Your task to perform on an android device: open chrome and create a bookmark for the current page Image 0: 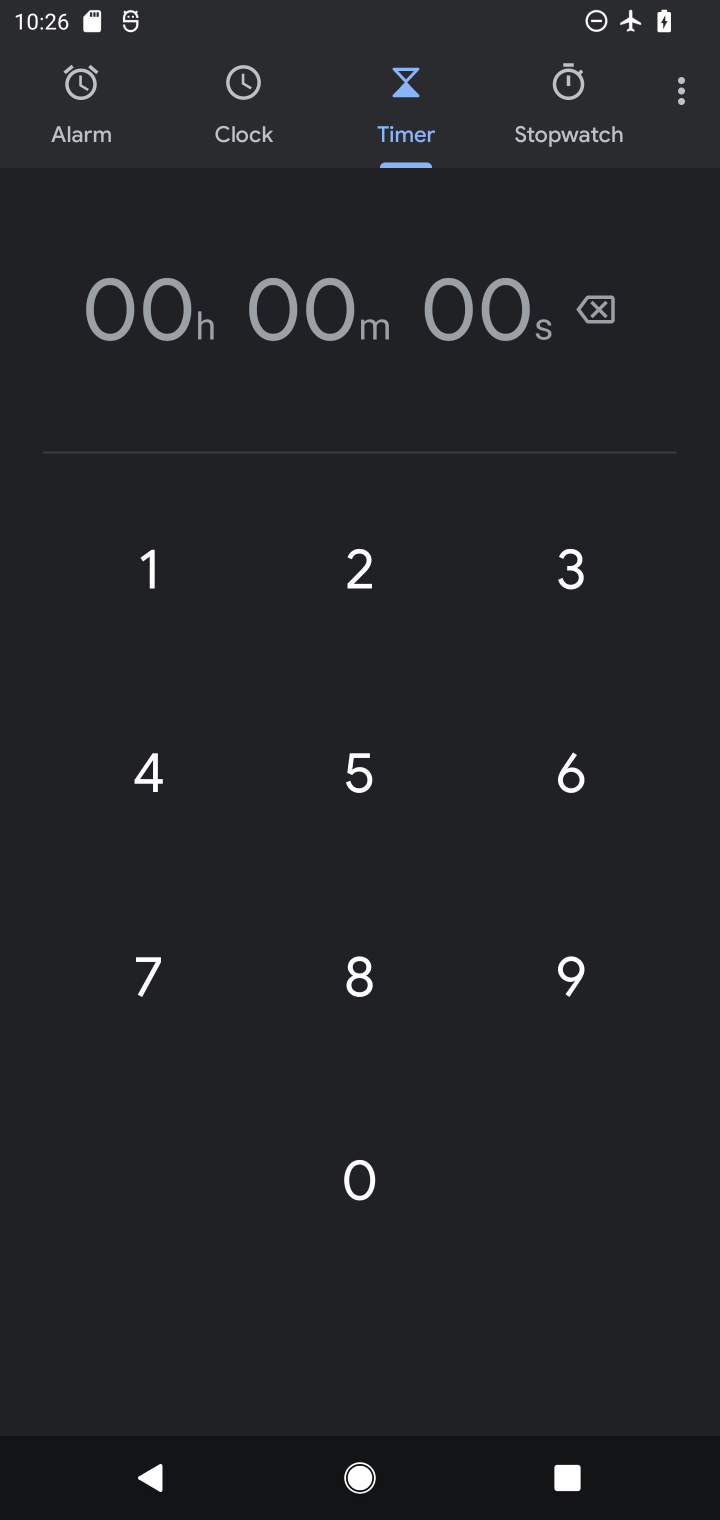
Step 0: press home button
Your task to perform on an android device: open chrome and create a bookmark for the current page Image 1: 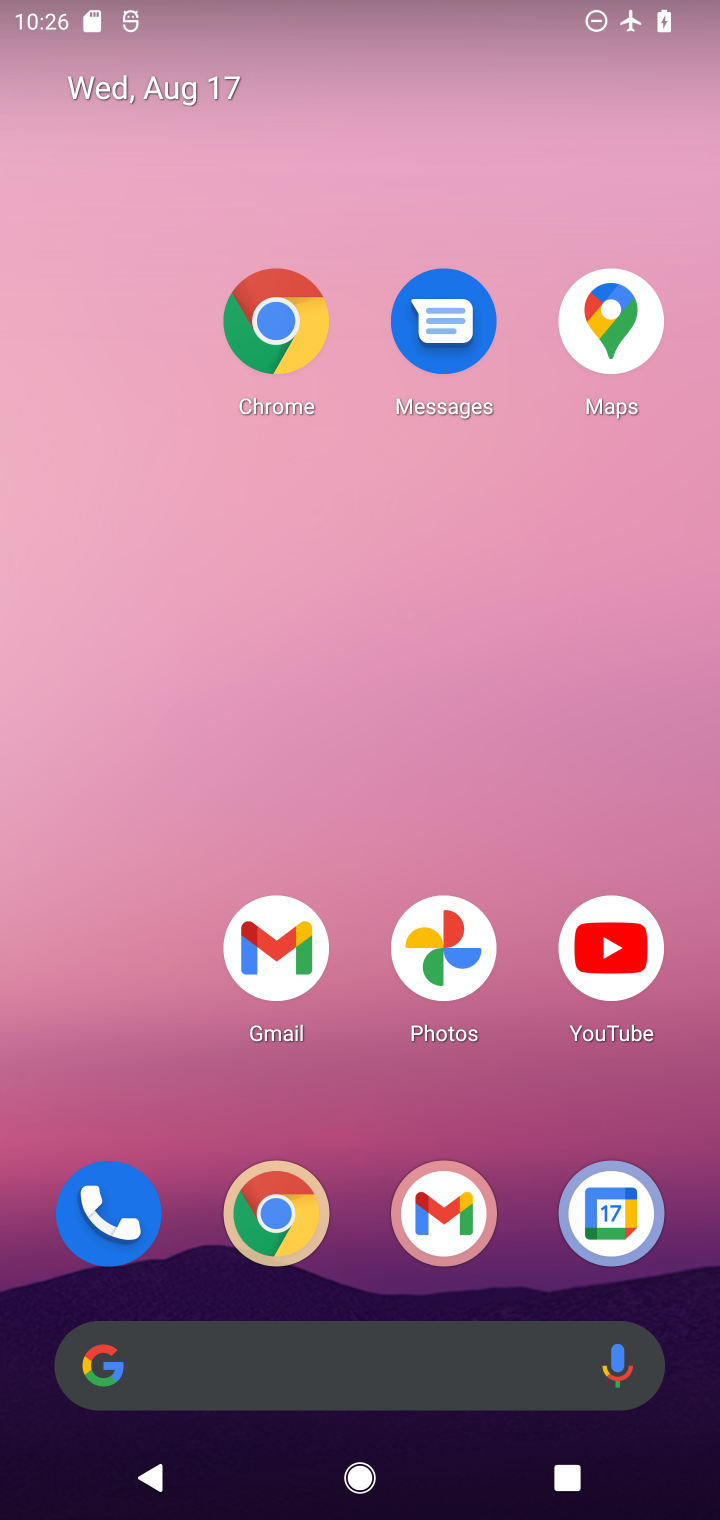
Step 1: click (301, 1213)
Your task to perform on an android device: open chrome and create a bookmark for the current page Image 2: 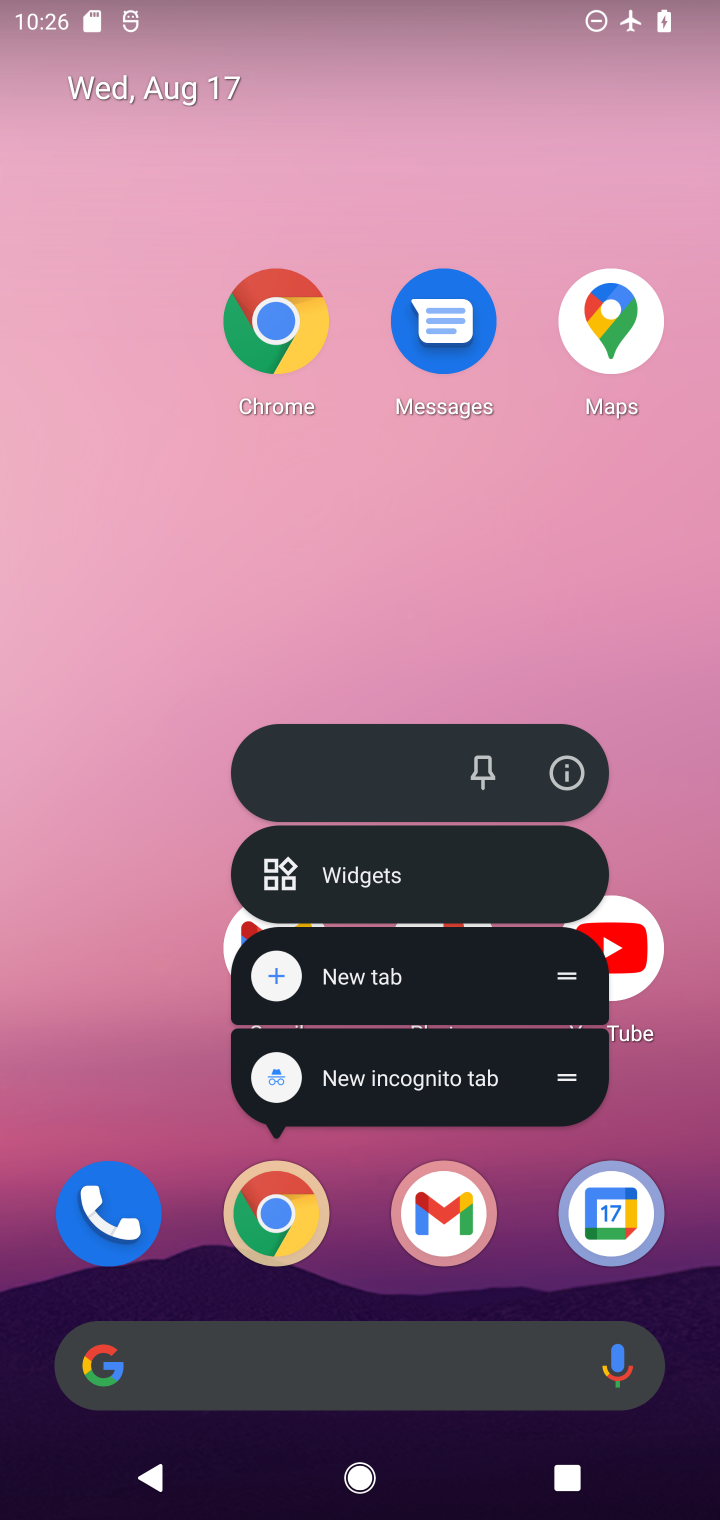
Step 2: click (301, 1213)
Your task to perform on an android device: open chrome and create a bookmark for the current page Image 3: 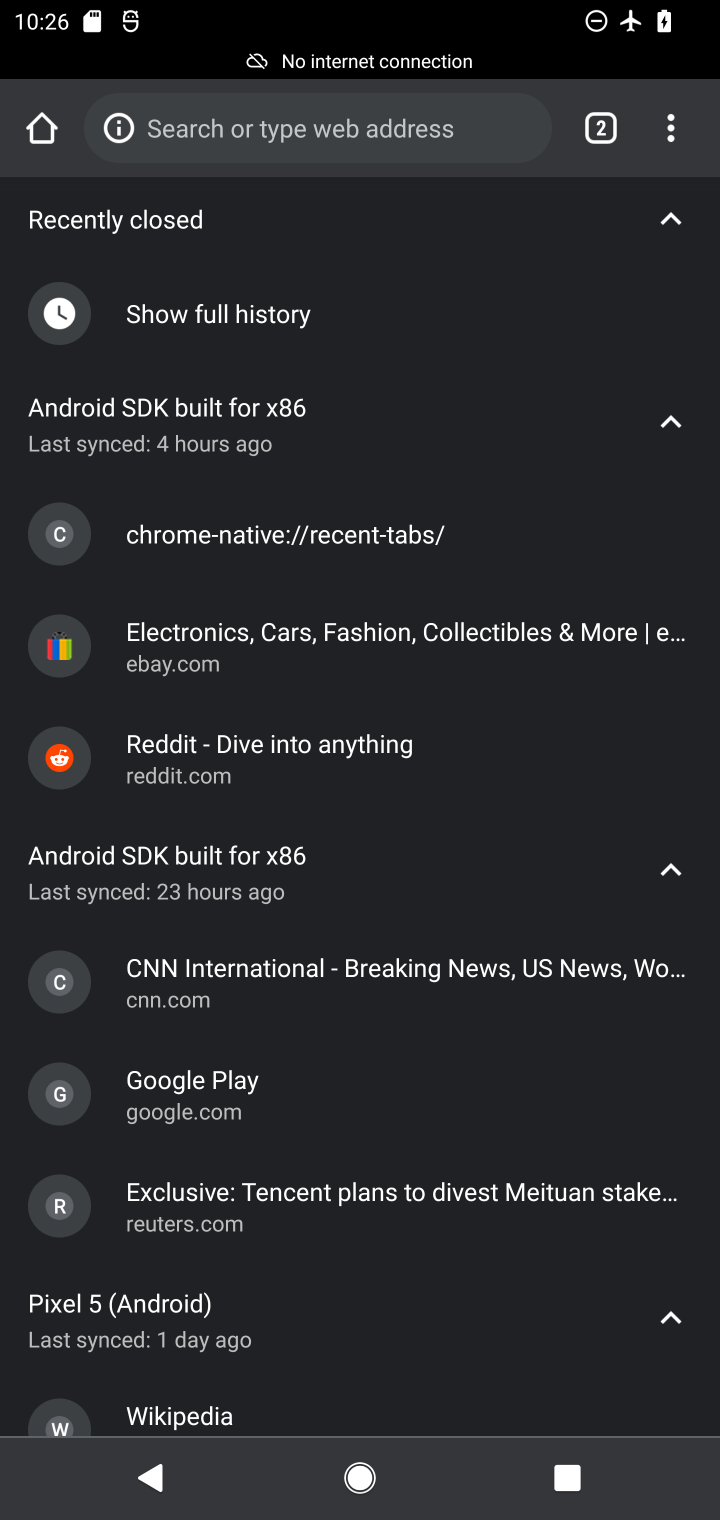
Step 3: click (662, 124)
Your task to perform on an android device: open chrome and create a bookmark for the current page Image 4: 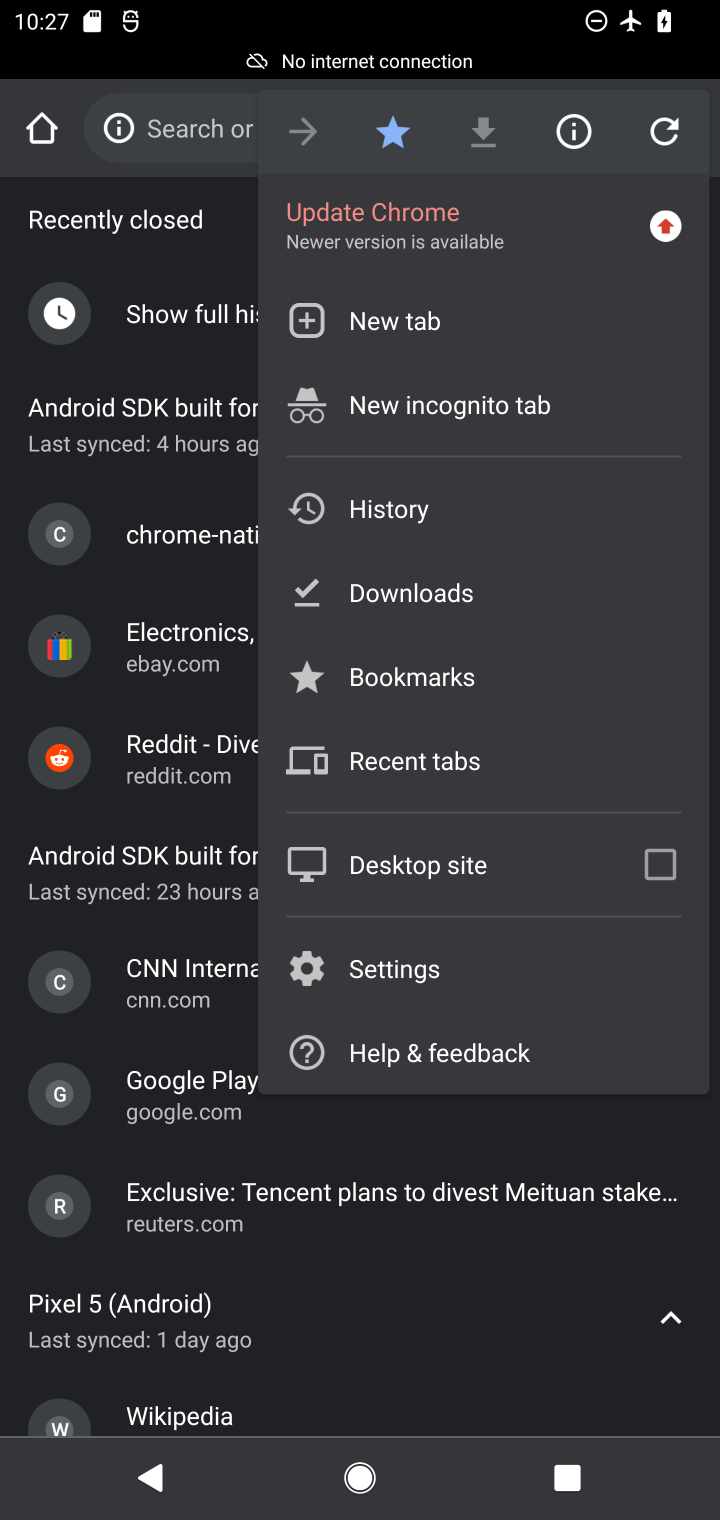
Step 4: click (363, 989)
Your task to perform on an android device: open chrome and create a bookmark for the current page Image 5: 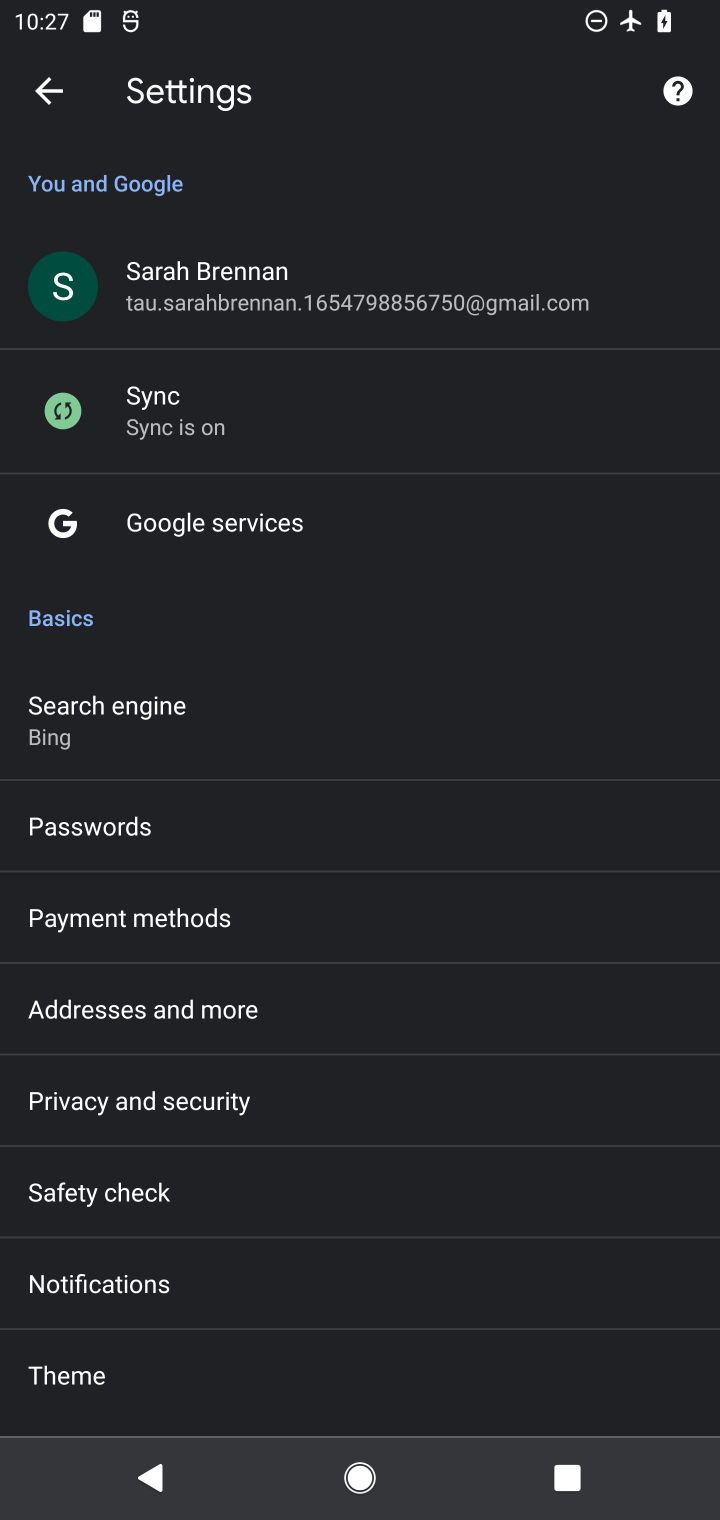
Step 5: task complete